Your task to perform on an android device: Go to internet settings Image 0: 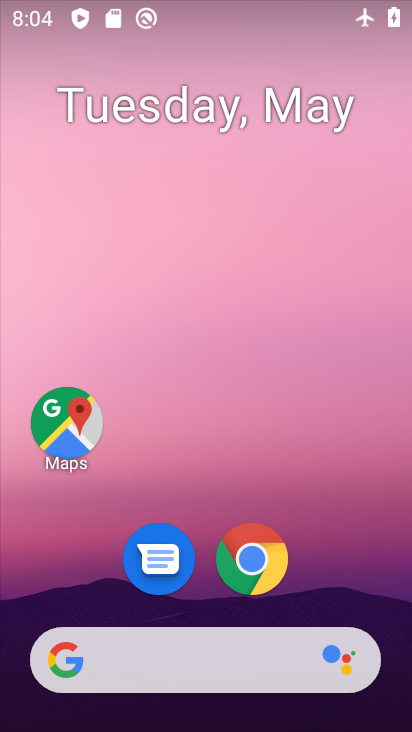
Step 0: drag from (205, 590) to (201, 181)
Your task to perform on an android device: Go to internet settings Image 1: 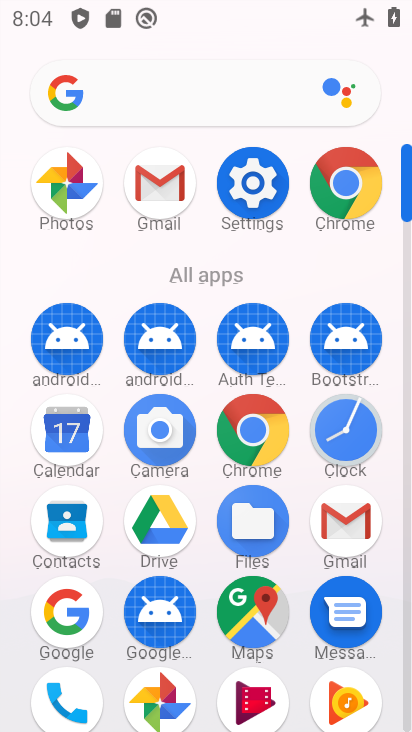
Step 1: click (235, 191)
Your task to perform on an android device: Go to internet settings Image 2: 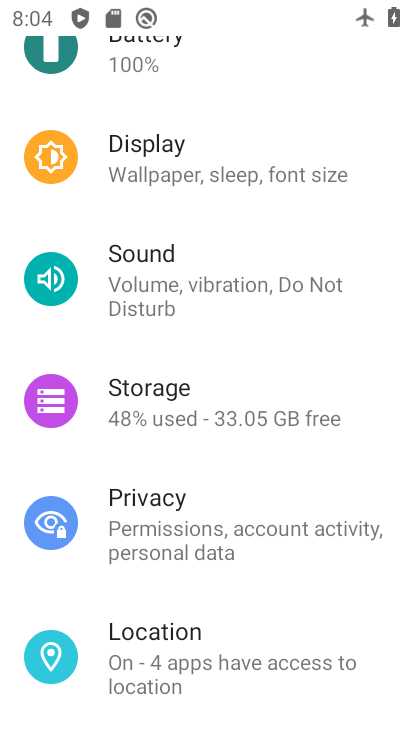
Step 2: drag from (228, 186) to (226, 643)
Your task to perform on an android device: Go to internet settings Image 3: 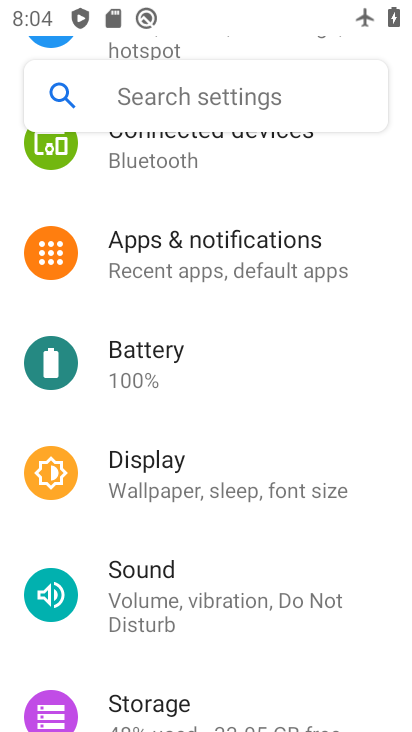
Step 3: drag from (191, 208) to (215, 575)
Your task to perform on an android device: Go to internet settings Image 4: 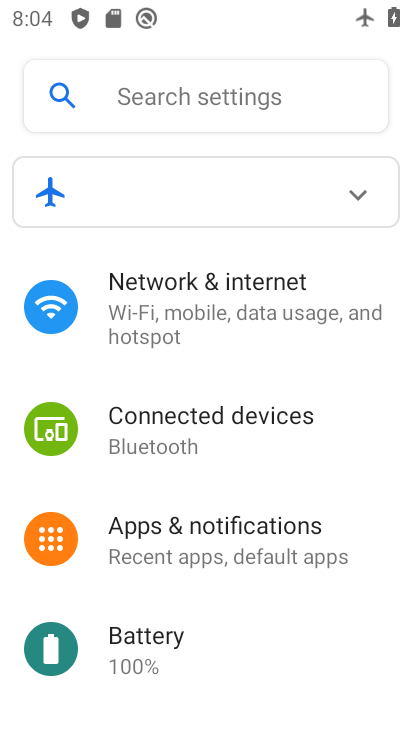
Step 4: click (211, 315)
Your task to perform on an android device: Go to internet settings Image 5: 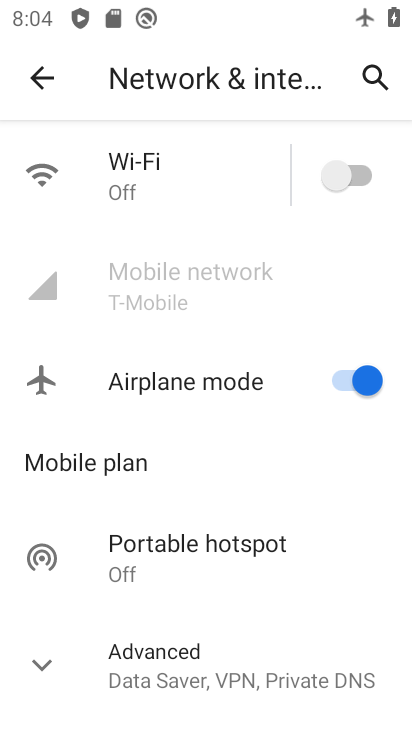
Step 5: click (211, 315)
Your task to perform on an android device: Go to internet settings Image 6: 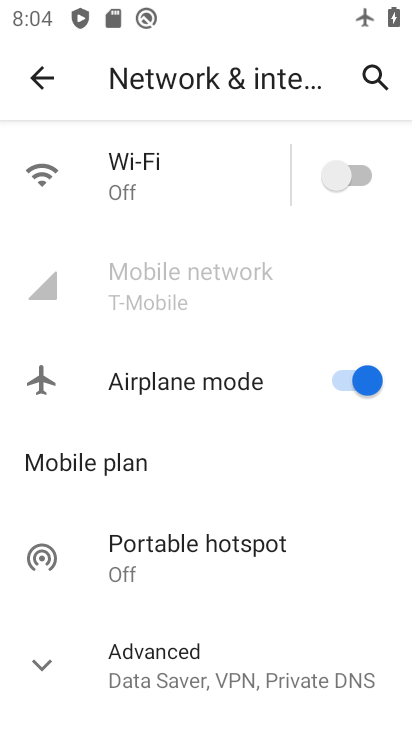
Step 6: task complete